Your task to perform on an android device: Open privacy settings Image 0: 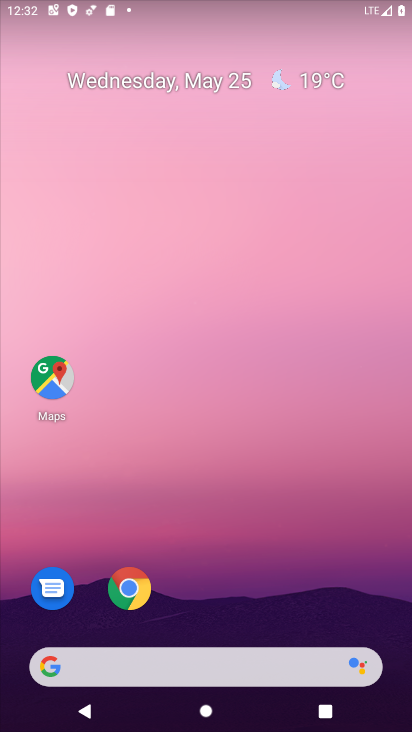
Step 0: click (132, 588)
Your task to perform on an android device: Open privacy settings Image 1: 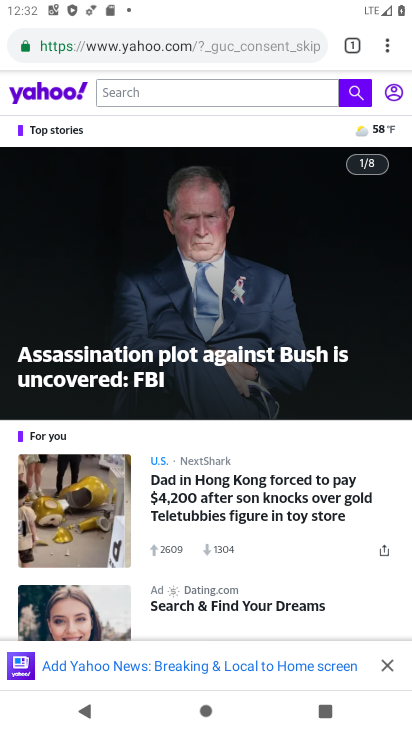
Step 1: drag from (402, 52) to (299, 543)
Your task to perform on an android device: Open privacy settings Image 2: 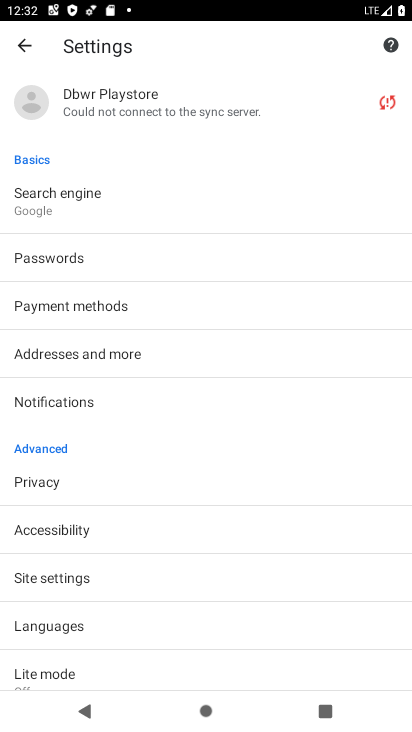
Step 2: click (112, 494)
Your task to perform on an android device: Open privacy settings Image 3: 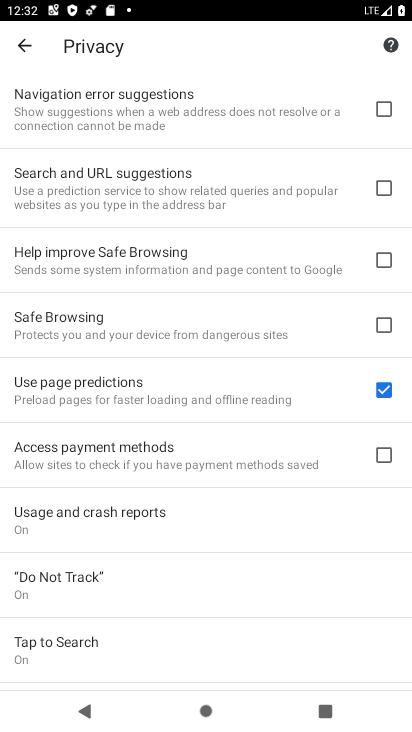
Step 3: task complete